Your task to perform on an android device: Go to calendar. Show me events next week Image 0: 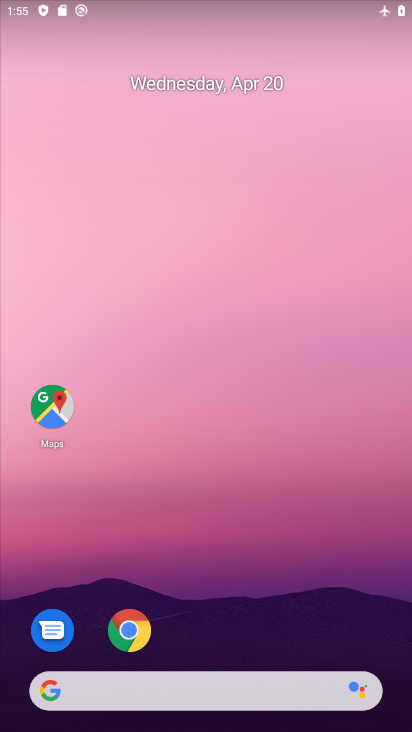
Step 0: drag from (349, 591) to (290, 154)
Your task to perform on an android device: Go to calendar. Show me events next week Image 1: 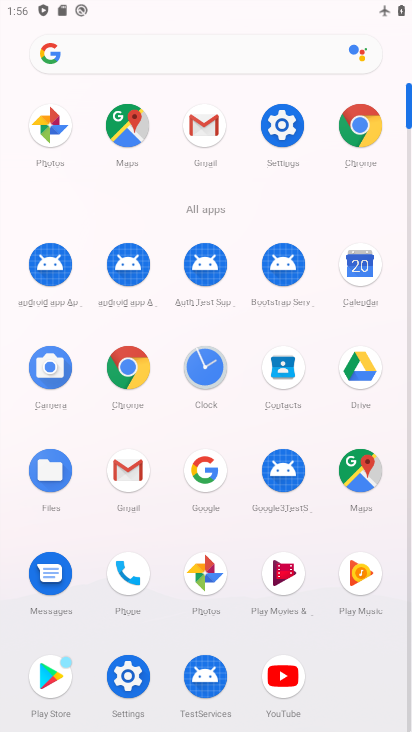
Step 1: click (366, 264)
Your task to perform on an android device: Go to calendar. Show me events next week Image 2: 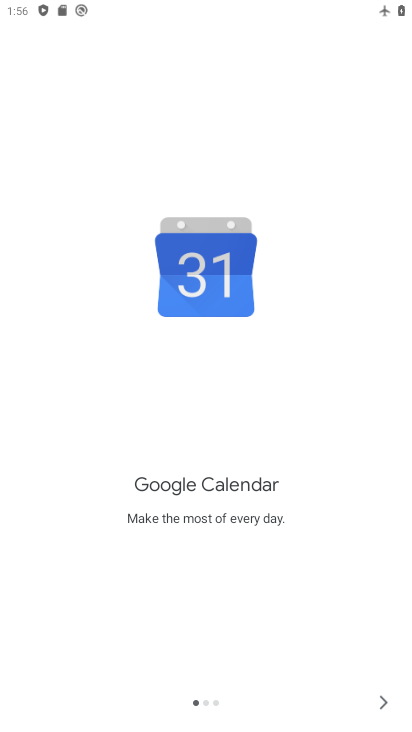
Step 2: click (375, 709)
Your task to perform on an android device: Go to calendar. Show me events next week Image 3: 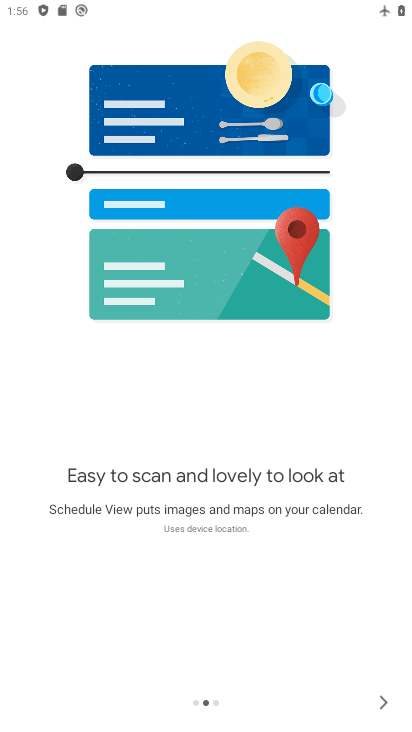
Step 3: click (375, 709)
Your task to perform on an android device: Go to calendar. Show me events next week Image 4: 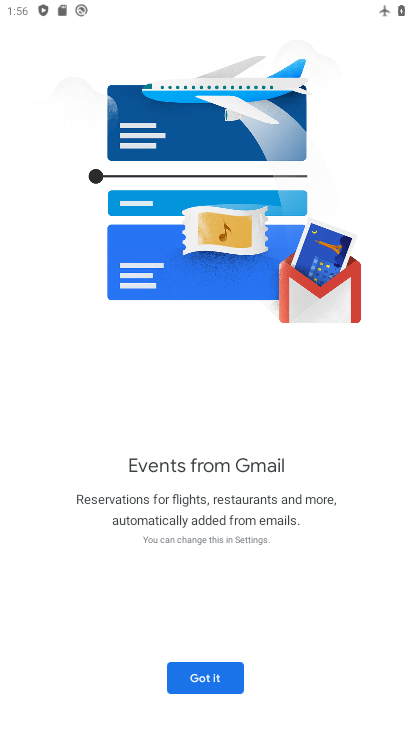
Step 4: click (200, 689)
Your task to perform on an android device: Go to calendar. Show me events next week Image 5: 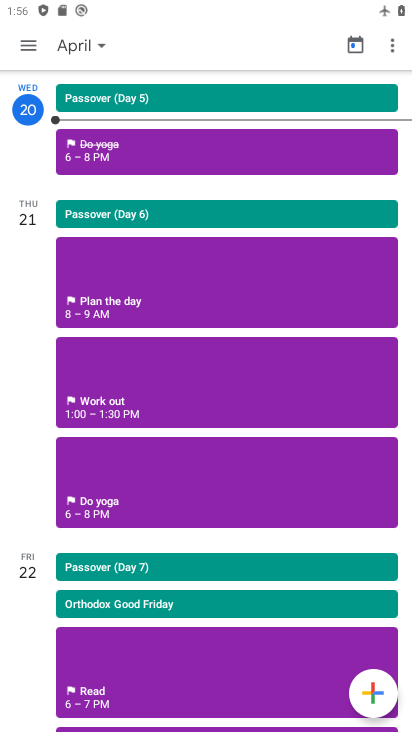
Step 5: click (30, 58)
Your task to perform on an android device: Go to calendar. Show me events next week Image 6: 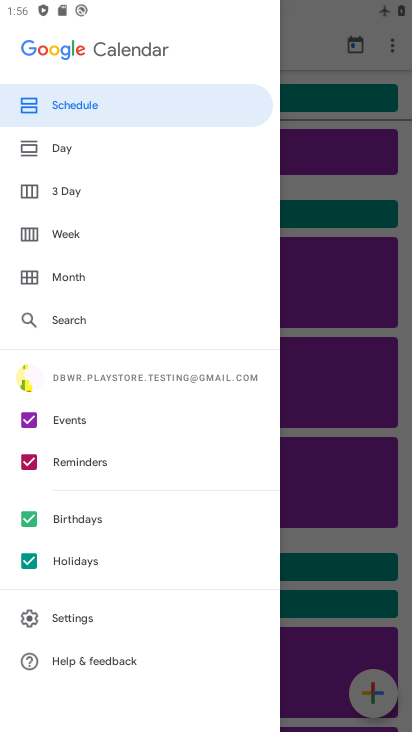
Step 6: click (77, 240)
Your task to perform on an android device: Go to calendar. Show me events next week Image 7: 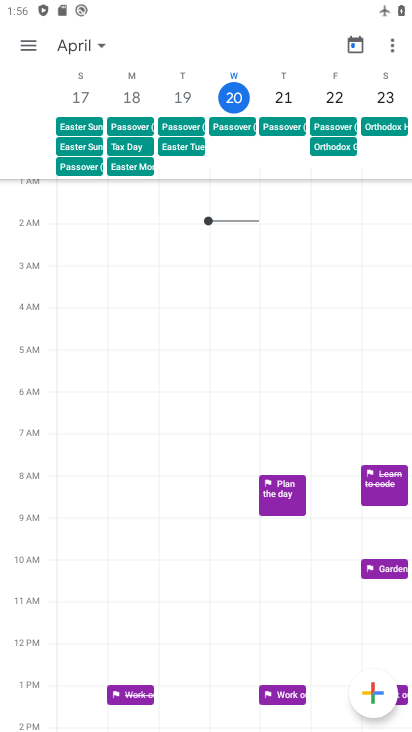
Step 7: click (103, 51)
Your task to perform on an android device: Go to calendar. Show me events next week Image 8: 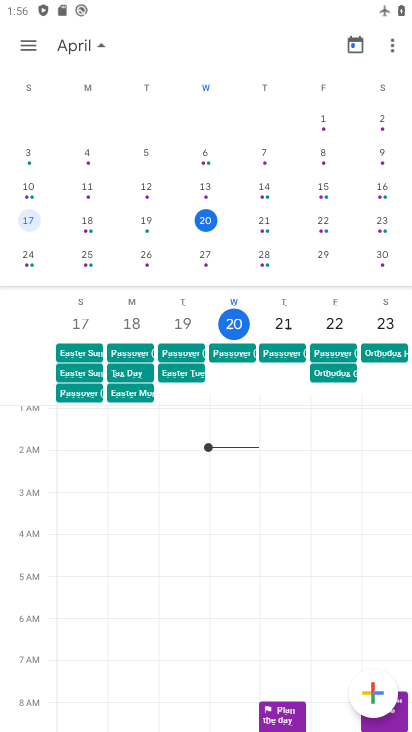
Step 8: click (261, 257)
Your task to perform on an android device: Go to calendar. Show me events next week Image 9: 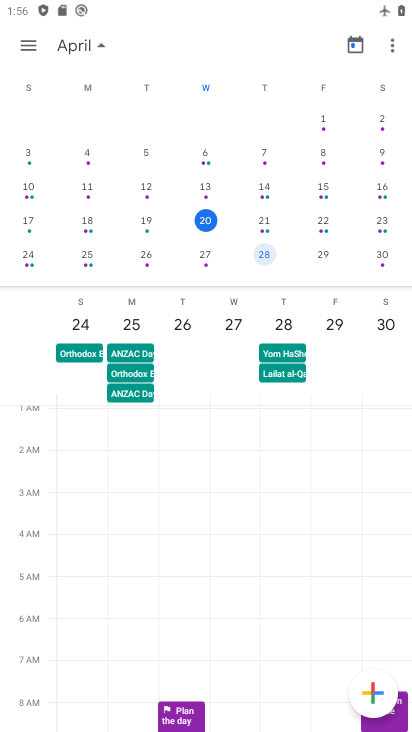
Step 9: click (106, 53)
Your task to perform on an android device: Go to calendar. Show me events next week Image 10: 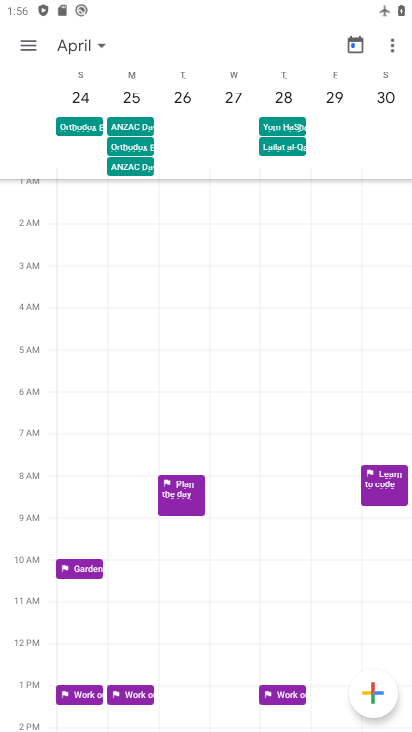
Step 10: task complete